Your task to perform on an android device: add a contact in the contacts app Image 0: 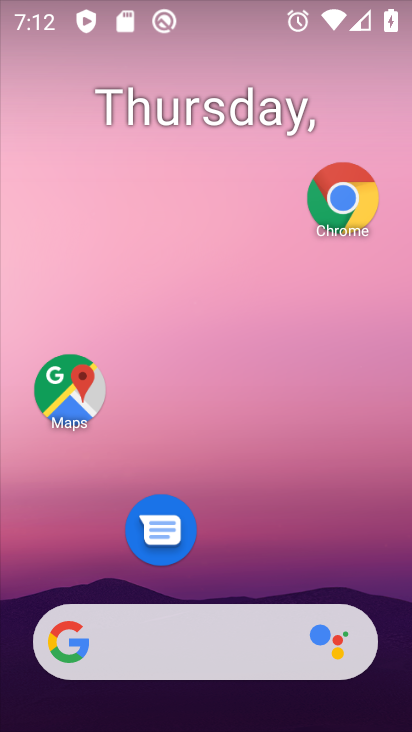
Step 0: drag from (265, 655) to (282, 149)
Your task to perform on an android device: add a contact in the contacts app Image 1: 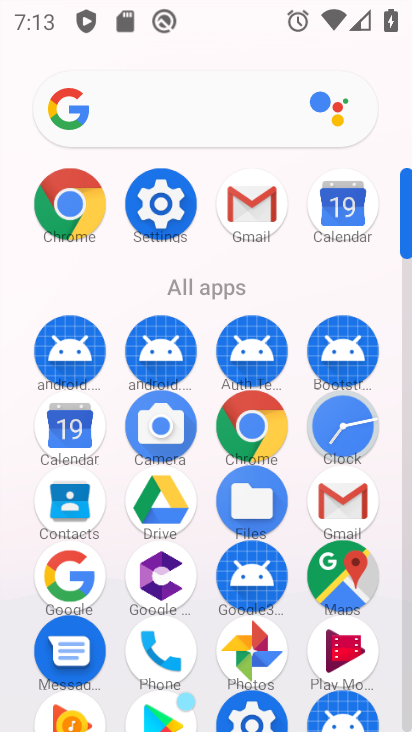
Step 1: click (154, 639)
Your task to perform on an android device: add a contact in the contacts app Image 2: 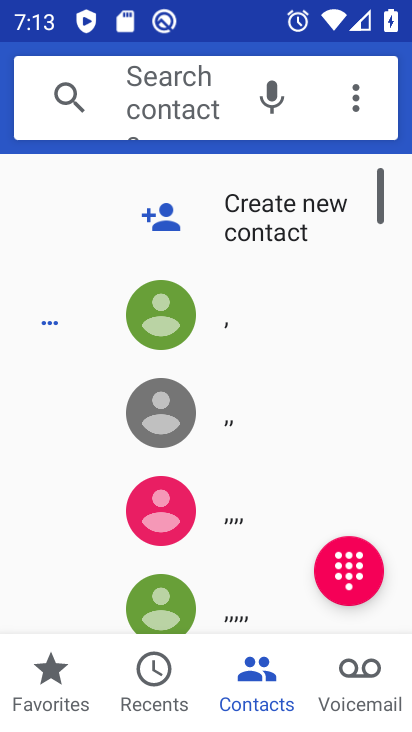
Step 2: click (258, 234)
Your task to perform on an android device: add a contact in the contacts app Image 3: 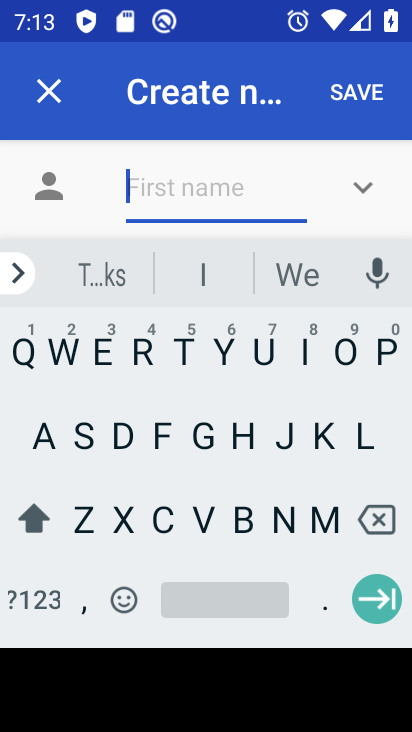
Step 3: click (141, 351)
Your task to perform on an android device: add a contact in the contacts app Image 4: 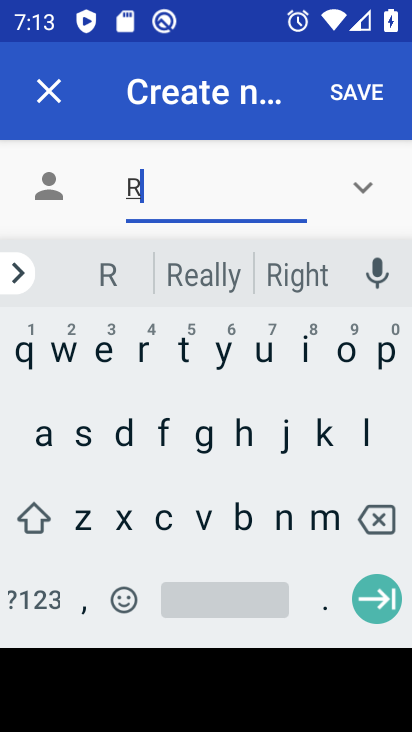
Step 4: click (211, 440)
Your task to perform on an android device: add a contact in the contacts app Image 5: 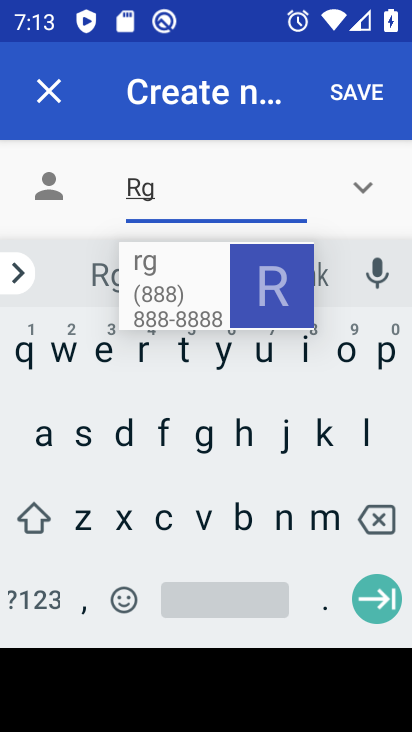
Step 5: click (125, 427)
Your task to perform on an android device: add a contact in the contacts app Image 6: 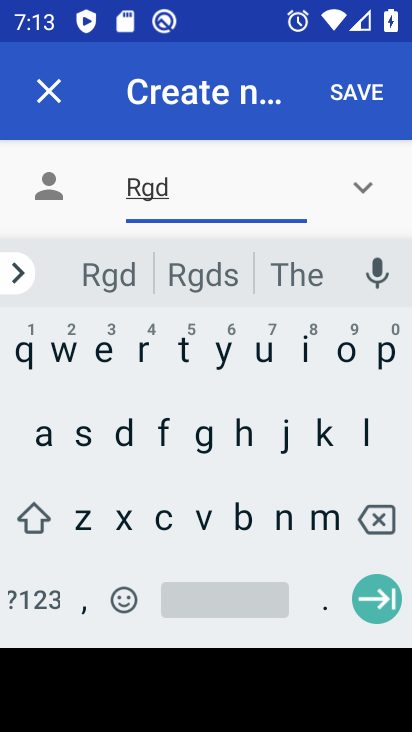
Step 6: drag from (248, 197) to (268, 108)
Your task to perform on an android device: add a contact in the contacts app Image 7: 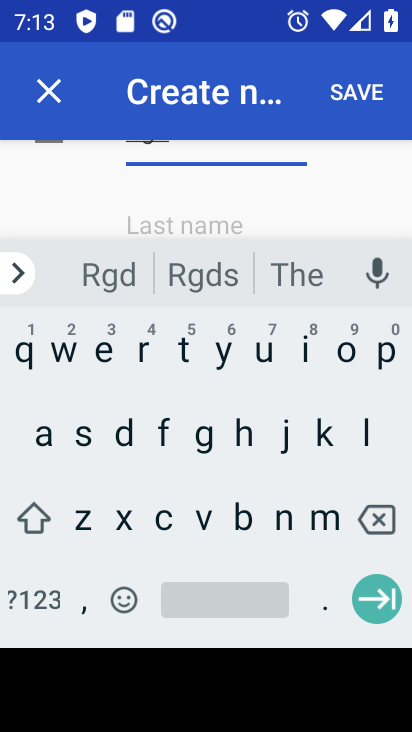
Step 7: drag from (210, 183) to (250, 73)
Your task to perform on an android device: add a contact in the contacts app Image 8: 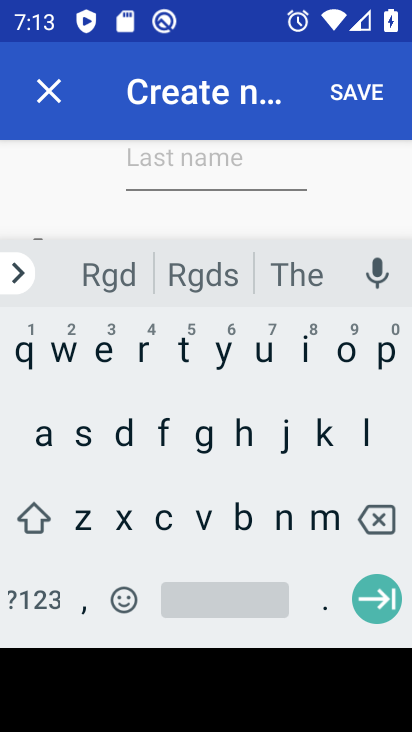
Step 8: drag from (158, 217) to (210, 142)
Your task to perform on an android device: add a contact in the contacts app Image 9: 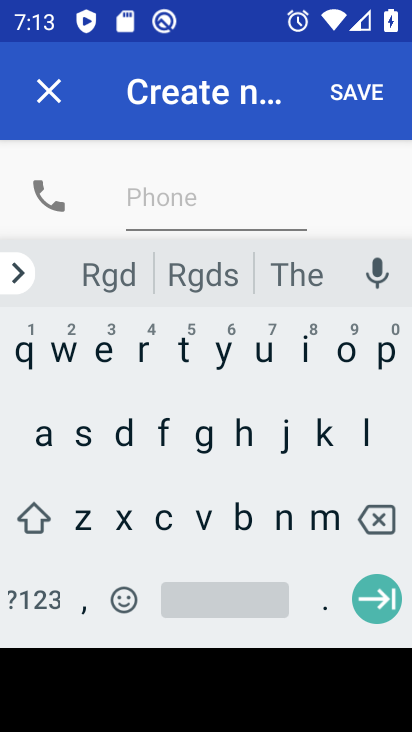
Step 9: click (166, 189)
Your task to perform on an android device: add a contact in the contacts app Image 10: 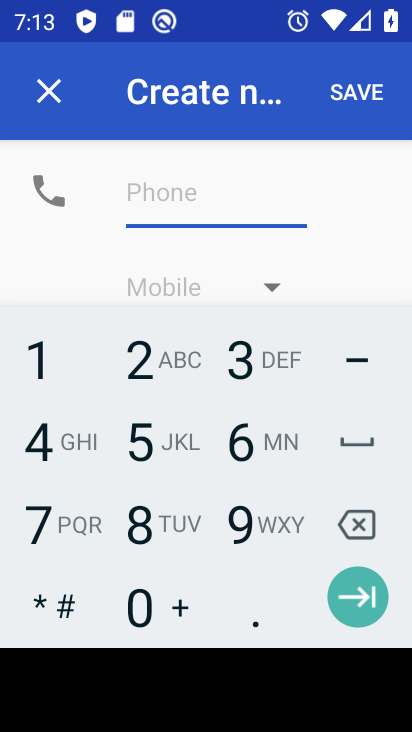
Step 10: click (144, 357)
Your task to perform on an android device: add a contact in the contacts app Image 11: 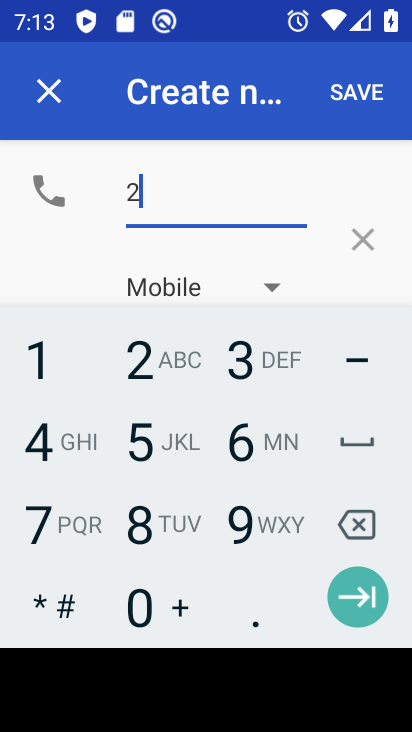
Step 11: click (155, 414)
Your task to perform on an android device: add a contact in the contacts app Image 12: 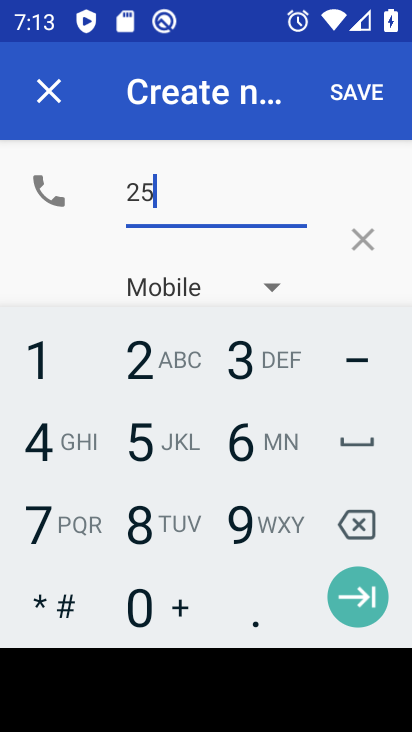
Step 12: click (22, 458)
Your task to perform on an android device: add a contact in the contacts app Image 13: 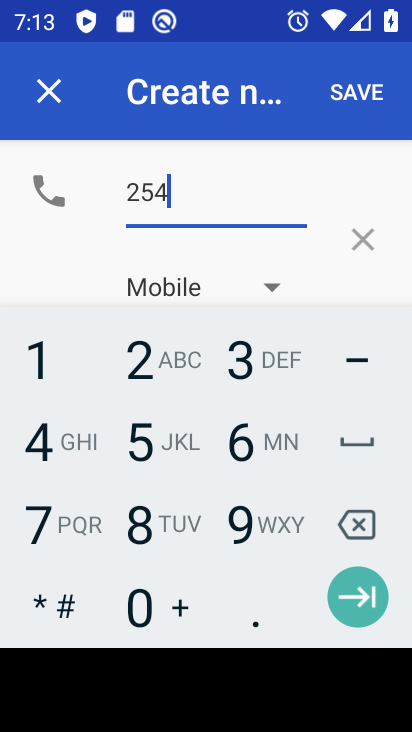
Step 13: click (64, 534)
Your task to perform on an android device: add a contact in the contacts app Image 14: 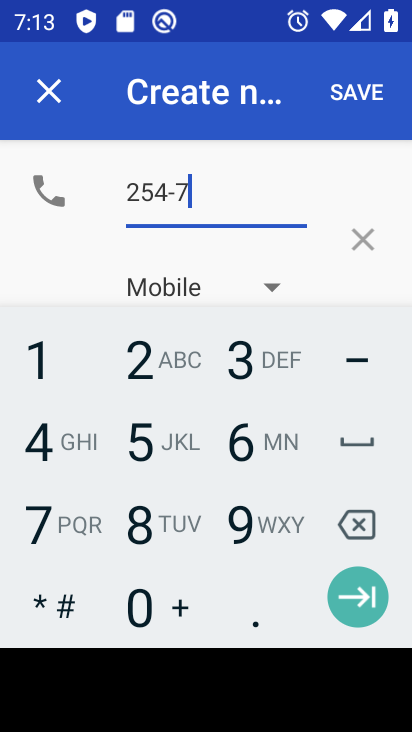
Step 14: click (114, 534)
Your task to perform on an android device: add a contact in the contacts app Image 15: 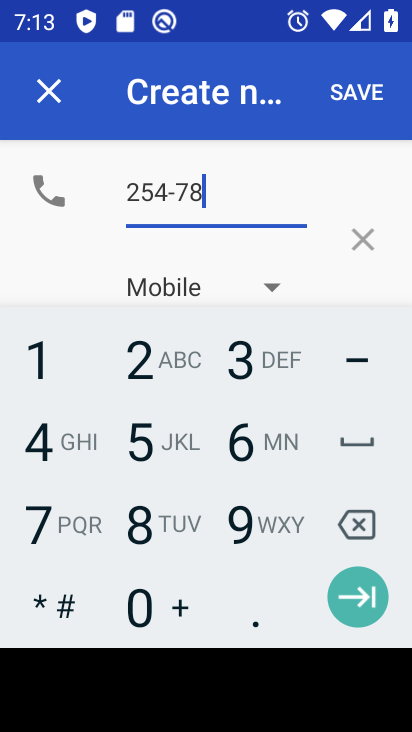
Step 15: click (210, 527)
Your task to perform on an android device: add a contact in the contacts app Image 16: 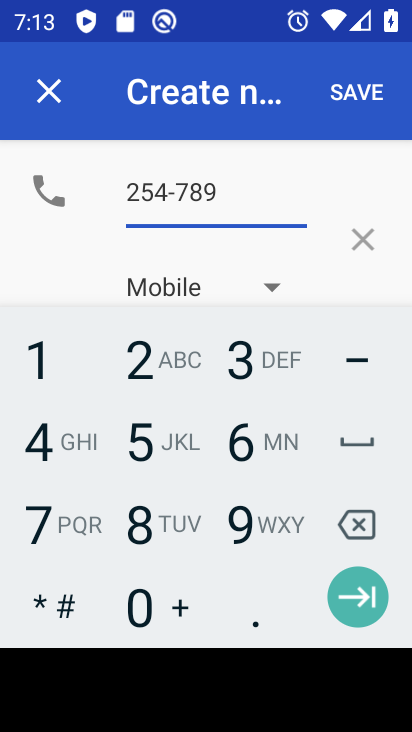
Step 16: click (380, 92)
Your task to perform on an android device: add a contact in the contacts app Image 17: 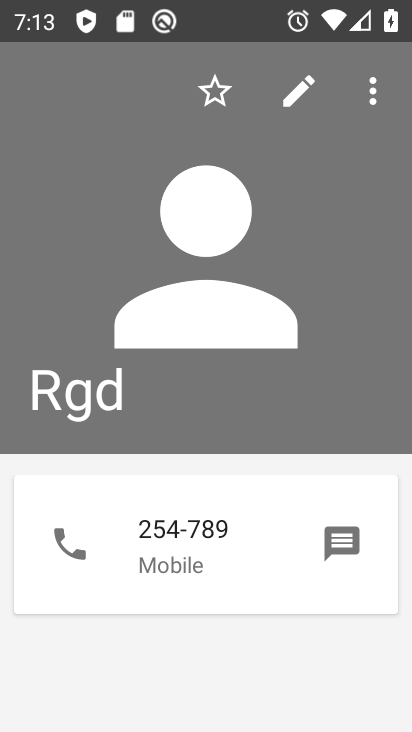
Step 17: task complete